Your task to perform on an android device: toggle notifications settings in the gmail app Image 0: 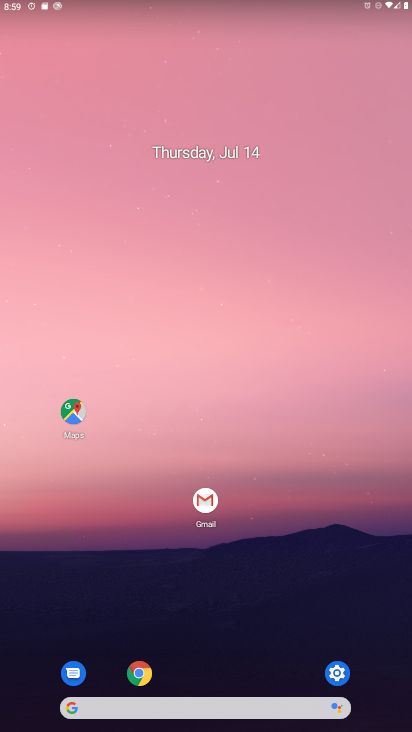
Step 0: click (207, 508)
Your task to perform on an android device: toggle notifications settings in the gmail app Image 1: 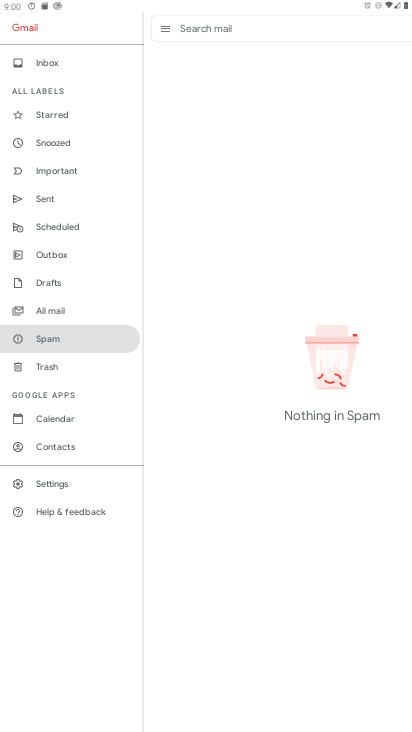
Step 1: click (51, 479)
Your task to perform on an android device: toggle notifications settings in the gmail app Image 2: 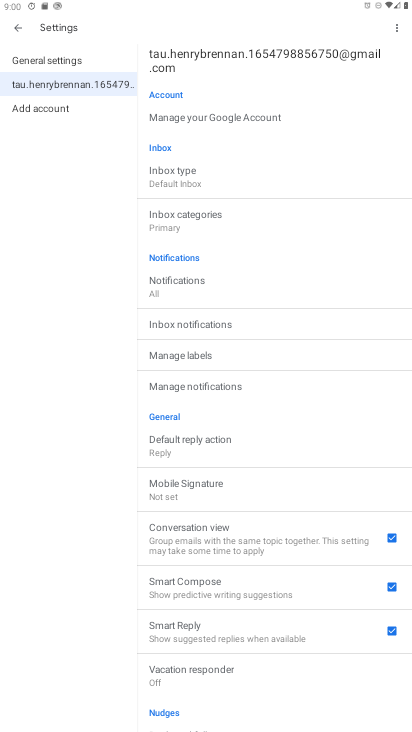
Step 2: click (195, 283)
Your task to perform on an android device: toggle notifications settings in the gmail app Image 3: 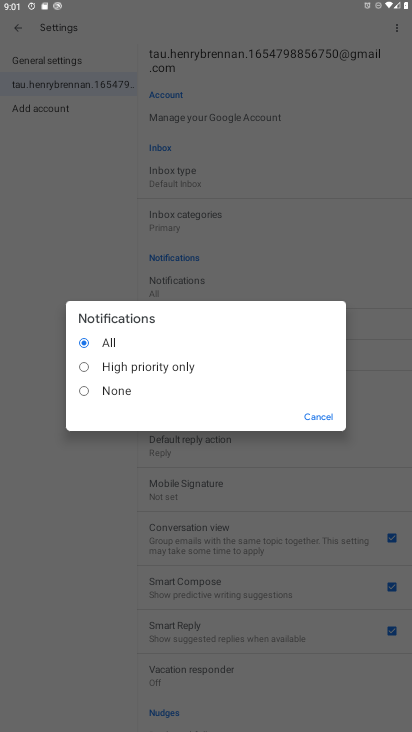
Step 3: task complete